Your task to perform on an android device: Open Reddit.com Image 0: 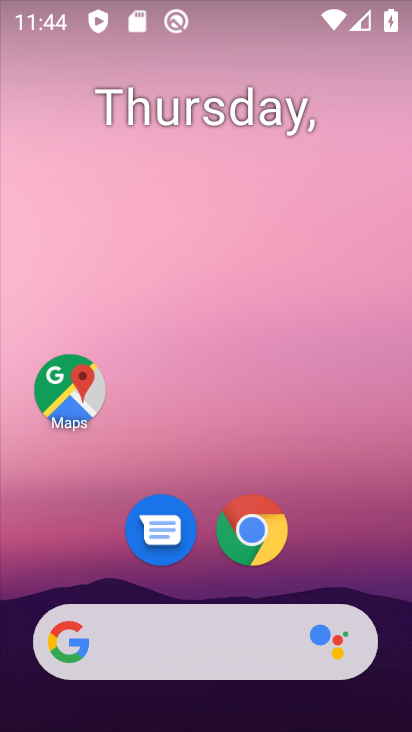
Step 0: click (251, 528)
Your task to perform on an android device: Open Reddit.com Image 1: 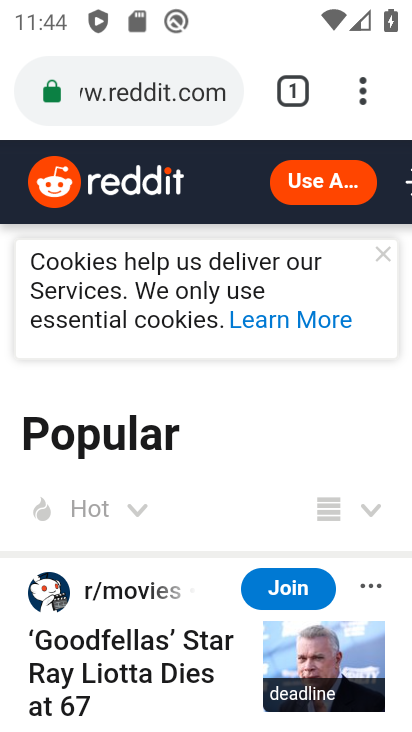
Step 1: click (223, 102)
Your task to perform on an android device: Open Reddit.com Image 2: 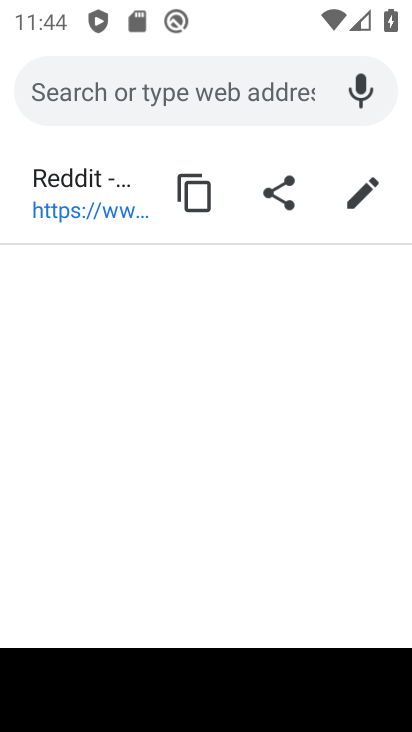
Step 2: type "Reddit.com"
Your task to perform on an android device: Open Reddit.com Image 3: 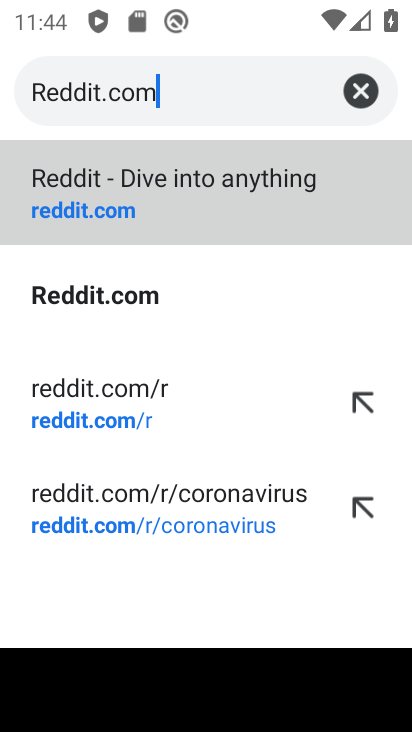
Step 3: click (191, 217)
Your task to perform on an android device: Open Reddit.com Image 4: 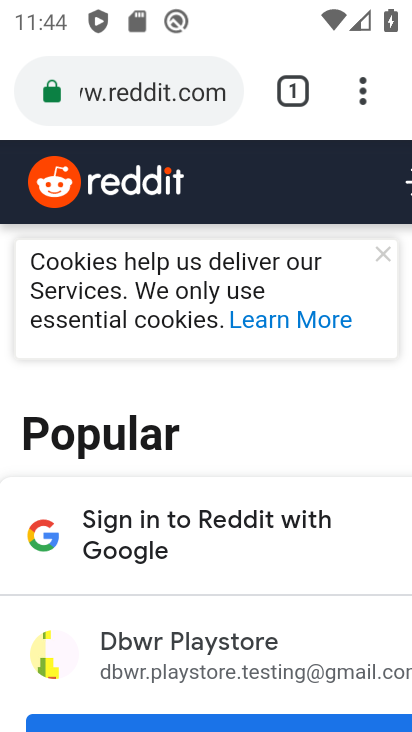
Step 4: task complete